Your task to perform on an android device: Open calendar and show me the third week of next month Image 0: 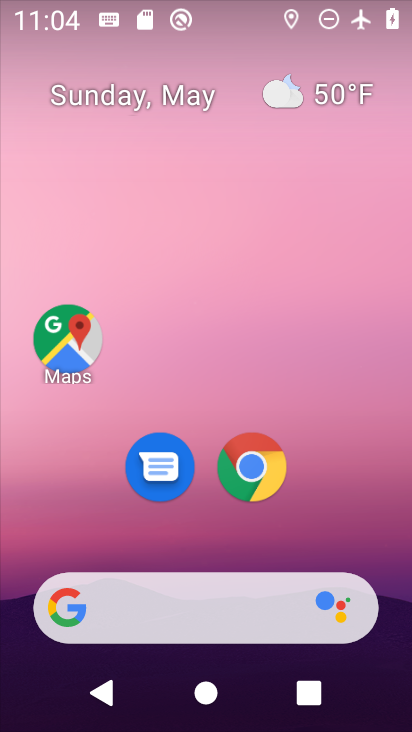
Step 0: drag from (206, 425) to (206, 178)
Your task to perform on an android device: Open calendar and show me the third week of next month Image 1: 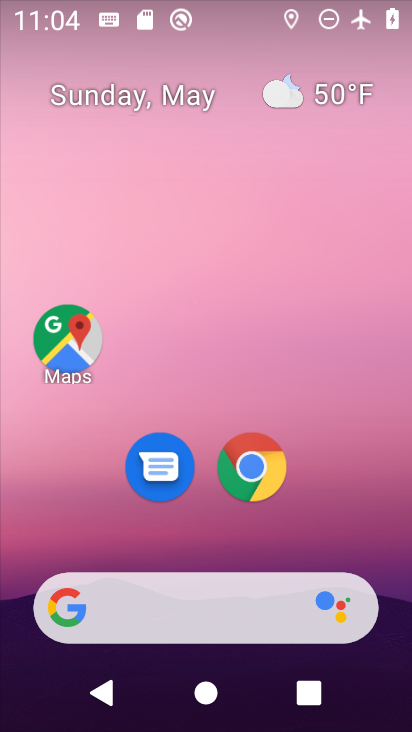
Step 1: drag from (197, 545) to (201, 143)
Your task to perform on an android device: Open calendar and show me the third week of next month Image 2: 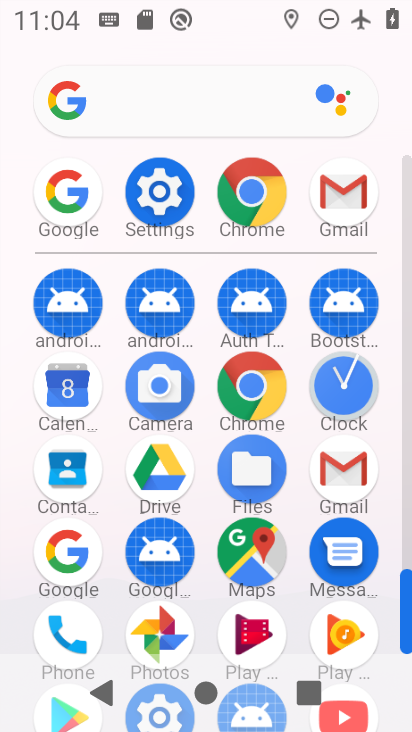
Step 2: click (75, 384)
Your task to perform on an android device: Open calendar and show me the third week of next month Image 3: 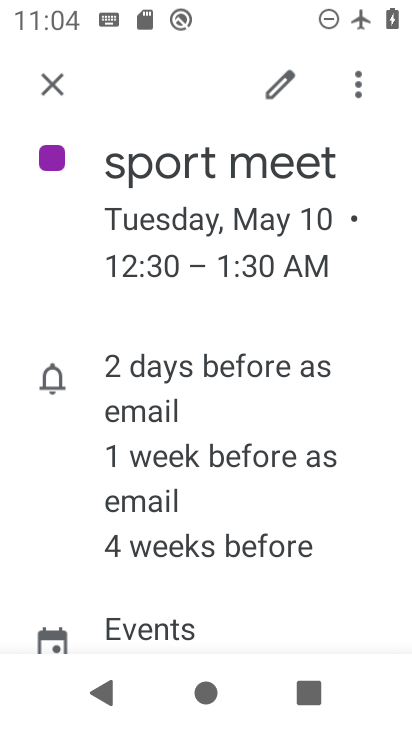
Step 3: click (52, 85)
Your task to perform on an android device: Open calendar and show me the third week of next month Image 4: 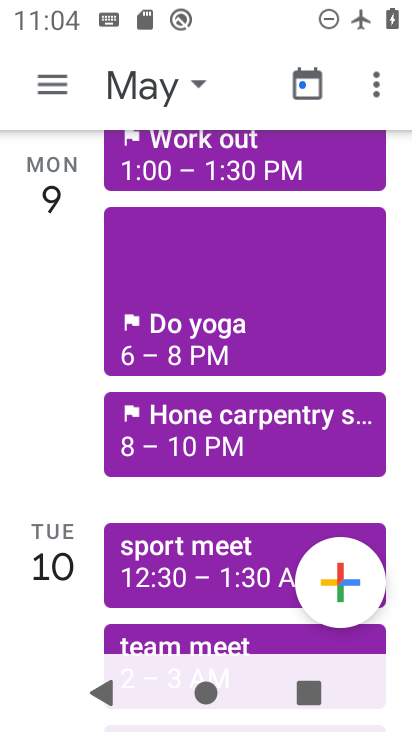
Step 4: click (175, 75)
Your task to perform on an android device: Open calendar and show me the third week of next month Image 5: 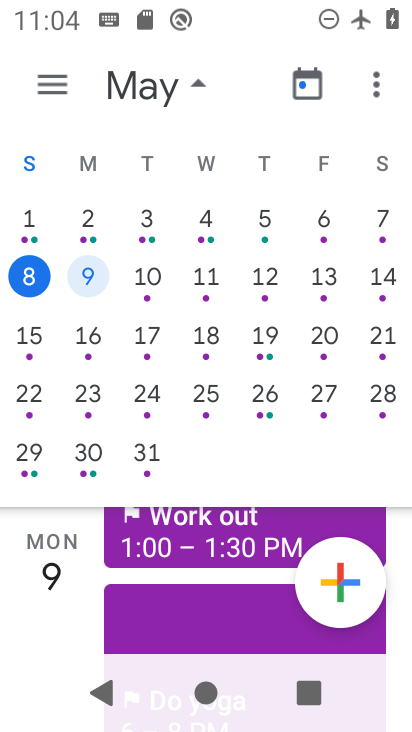
Step 5: drag from (348, 335) to (7, 325)
Your task to perform on an android device: Open calendar and show me the third week of next month Image 6: 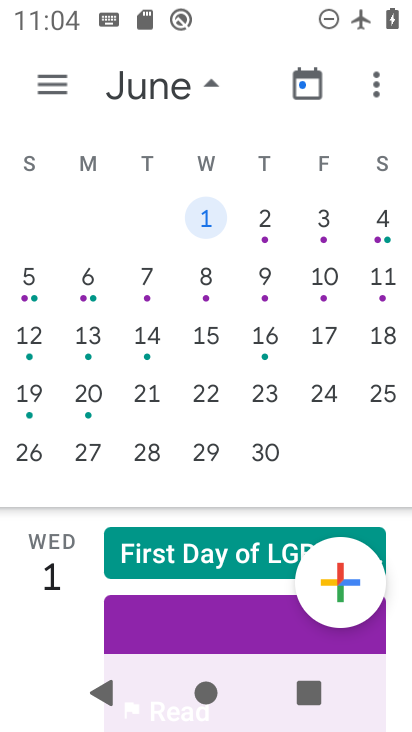
Step 6: click (87, 327)
Your task to perform on an android device: Open calendar and show me the third week of next month Image 7: 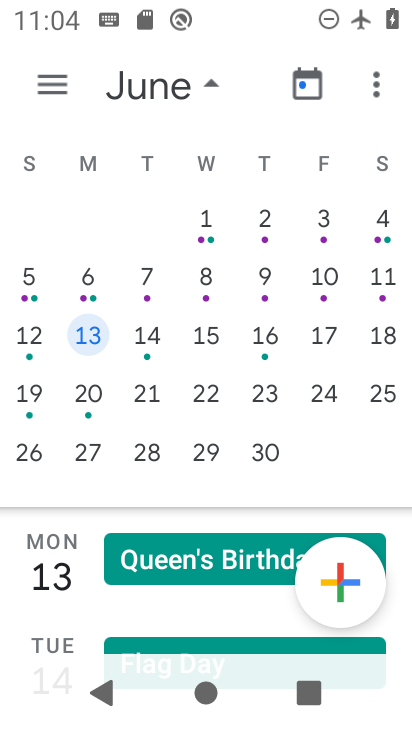
Step 7: click (153, 336)
Your task to perform on an android device: Open calendar and show me the third week of next month Image 8: 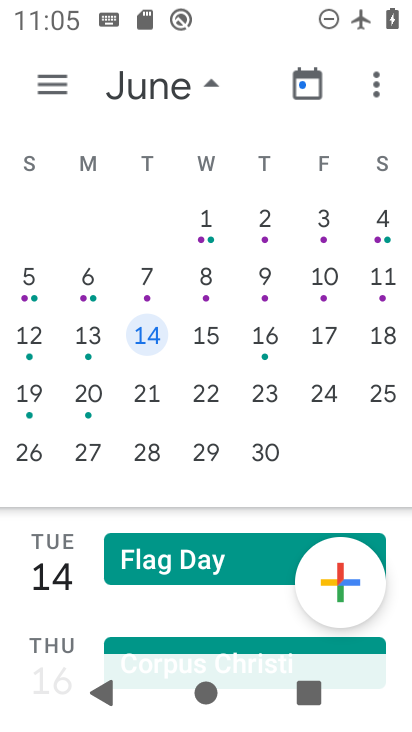
Step 8: click (98, 337)
Your task to perform on an android device: Open calendar and show me the third week of next month Image 9: 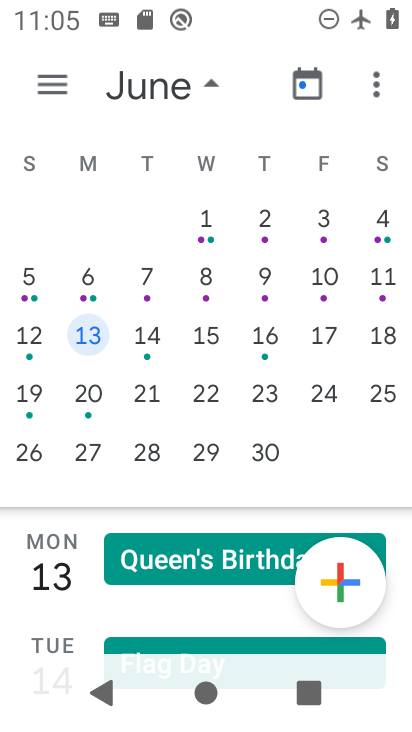
Step 9: task complete